Your task to perform on an android device: turn pop-ups on in chrome Image 0: 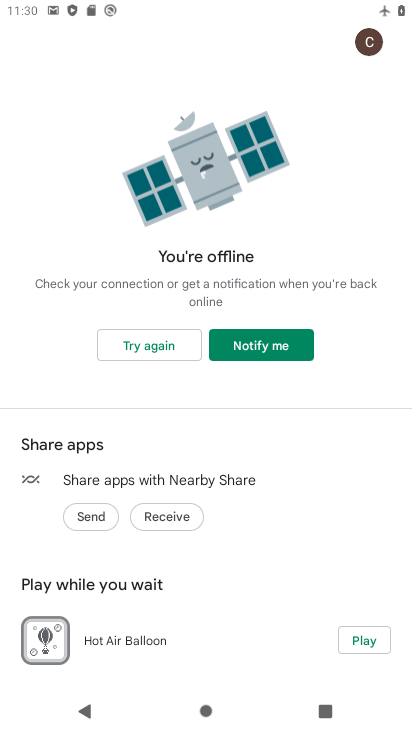
Step 0: drag from (276, 601) to (213, 162)
Your task to perform on an android device: turn pop-ups on in chrome Image 1: 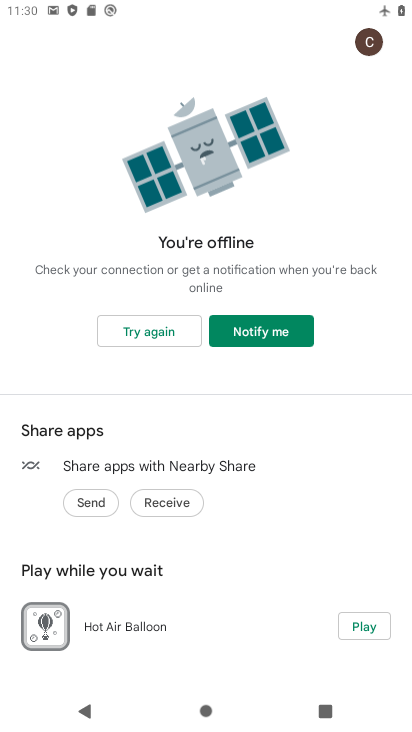
Step 1: press home button
Your task to perform on an android device: turn pop-ups on in chrome Image 2: 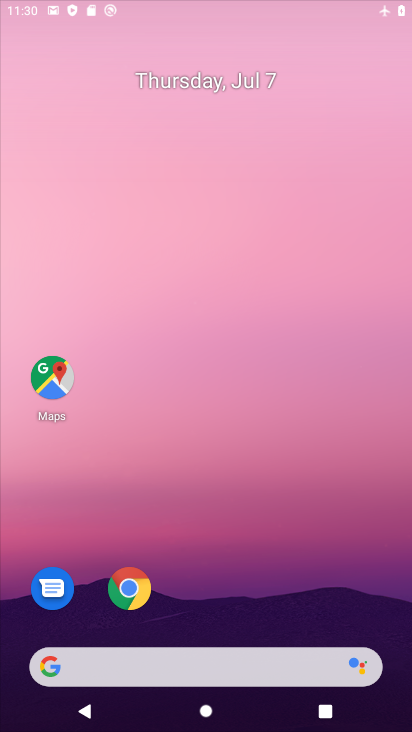
Step 2: drag from (273, 535) to (268, 4)
Your task to perform on an android device: turn pop-ups on in chrome Image 3: 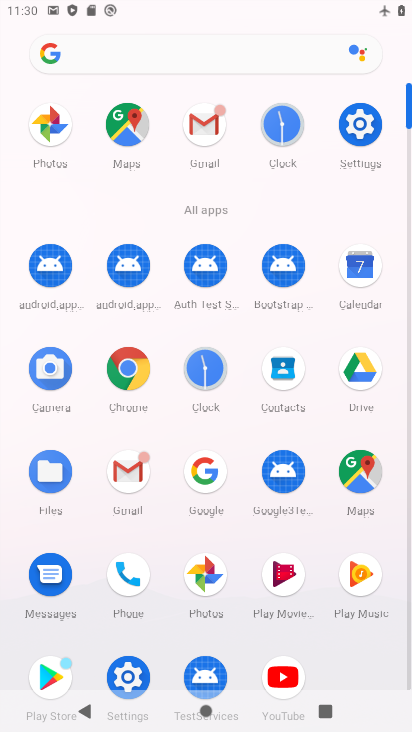
Step 3: click (138, 371)
Your task to perform on an android device: turn pop-ups on in chrome Image 4: 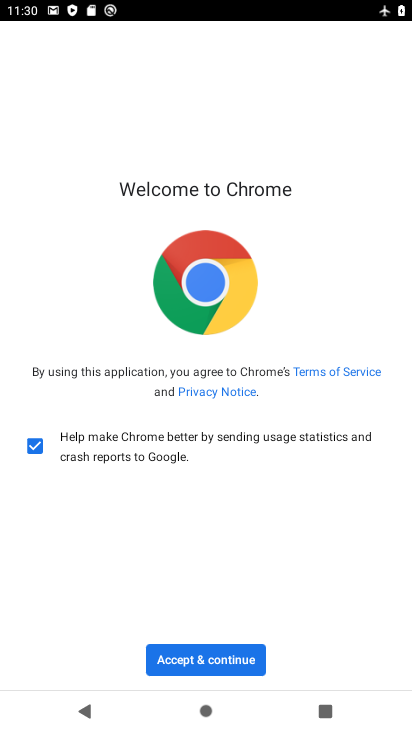
Step 4: click (208, 662)
Your task to perform on an android device: turn pop-ups on in chrome Image 5: 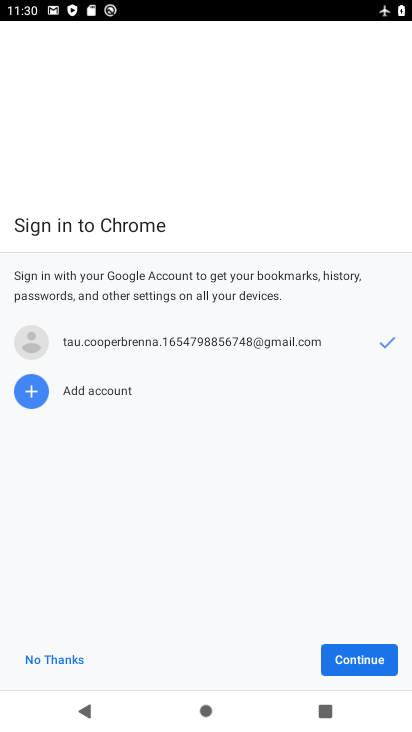
Step 5: click (385, 654)
Your task to perform on an android device: turn pop-ups on in chrome Image 6: 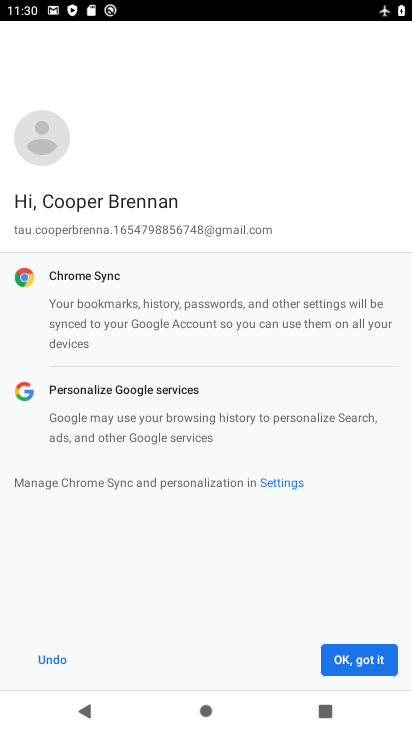
Step 6: click (385, 654)
Your task to perform on an android device: turn pop-ups on in chrome Image 7: 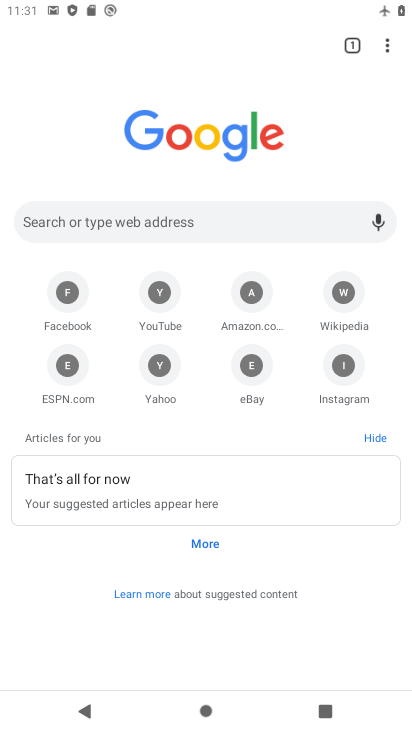
Step 7: drag from (381, 45) to (225, 376)
Your task to perform on an android device: turn pop-ups on in chrome Image 8: 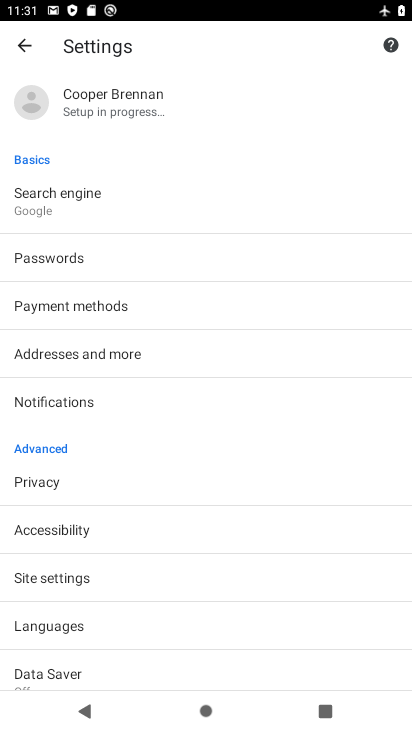
Step 8: click (83, 573)
Your task to perform on an android device: turn pop-ups on in chrome Image 9: 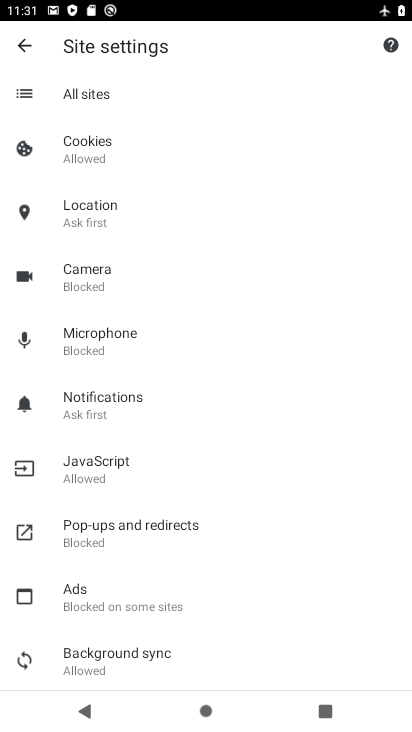
Step 9: click (135, 540)
Your task to perform on an android device: turn pop-ups on in chrome Image 10: 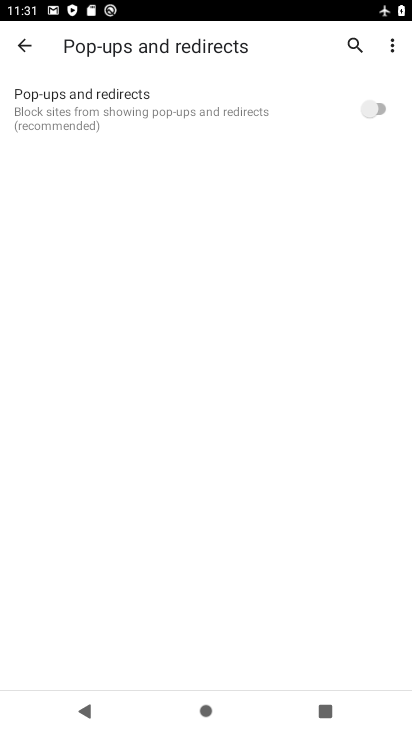
Step 10: click (240, 125)
Your task to perform on an android device: turn pop-ups on in chrome Image 11: 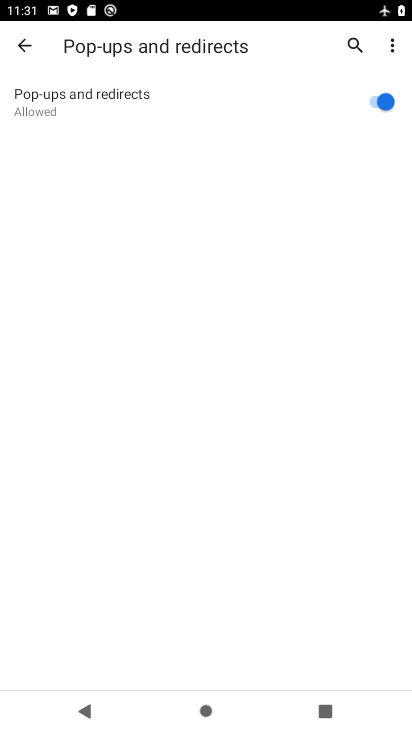
Step 11: task complete